Your task to perform on an android device: Is it going to rain today? Image 0: 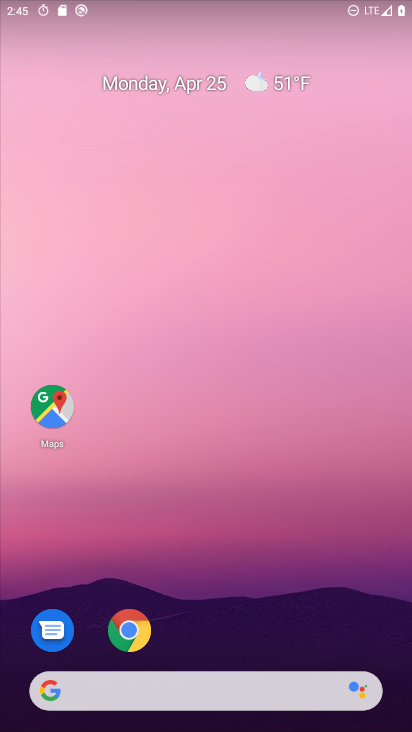
Step 0: drag from (231, 637) to (335, 0)
Your task to perform on an android device: Is it going to rain today? Image 1: 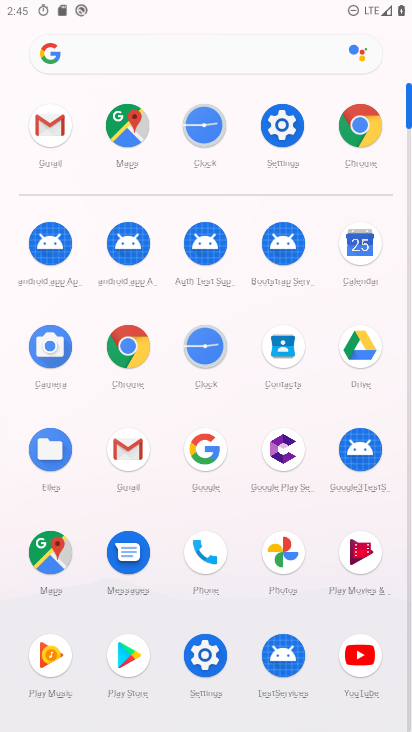
Step 1: click (230, 60)
Your task to perform on an android device: Is it going to rain today? Image 2: 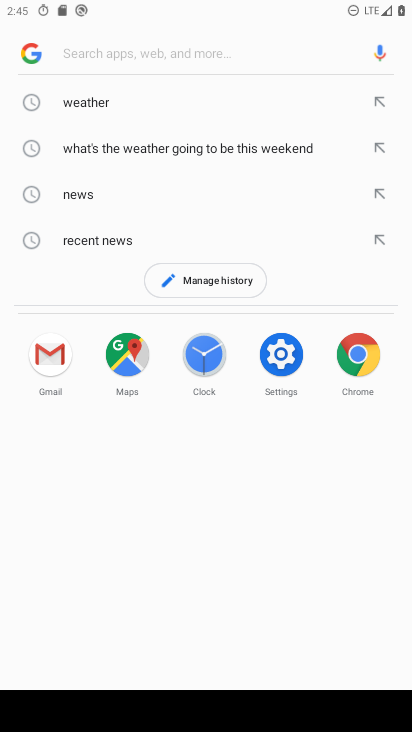
Step 2: click (141, 51)
Your task to perform on an android device: Is it going to rain today? Image 3: 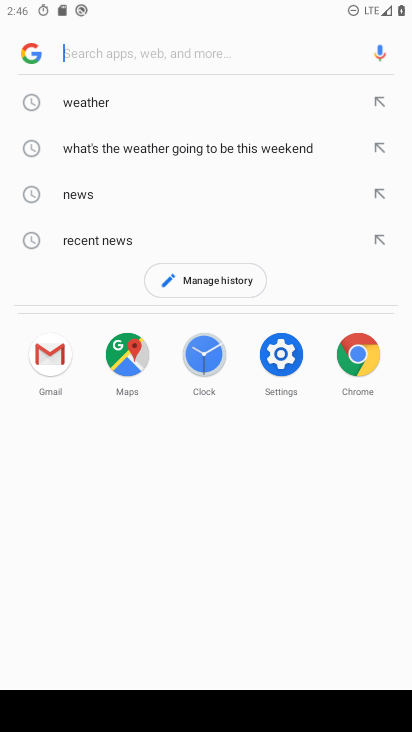
Step 3: type "rain today"
Your task to perform on an android device: Is it going to rain today? Image 4: 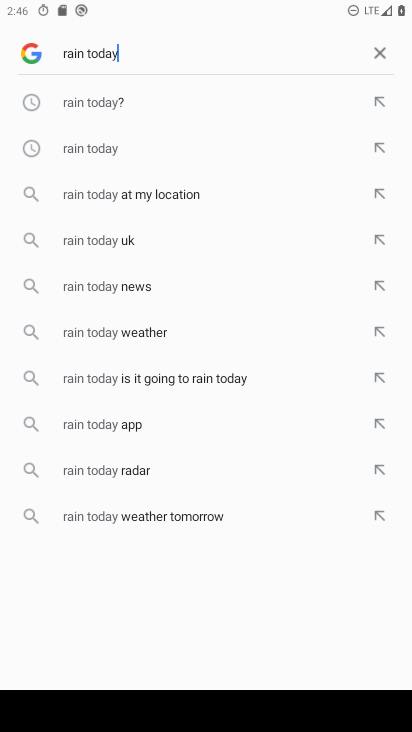
Step 4: click (121, 92)
Your task to perform on an android device: Is it going to rain today? Image 5: 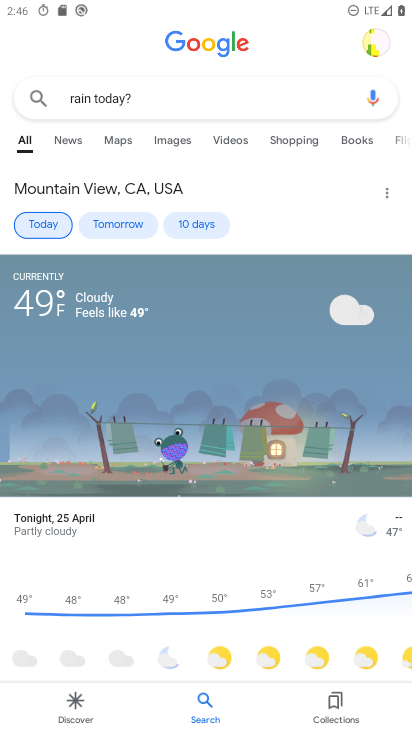
Step 5: task complete